Your task to perform on an android device: View the shopping cart on amazon. Image 0: 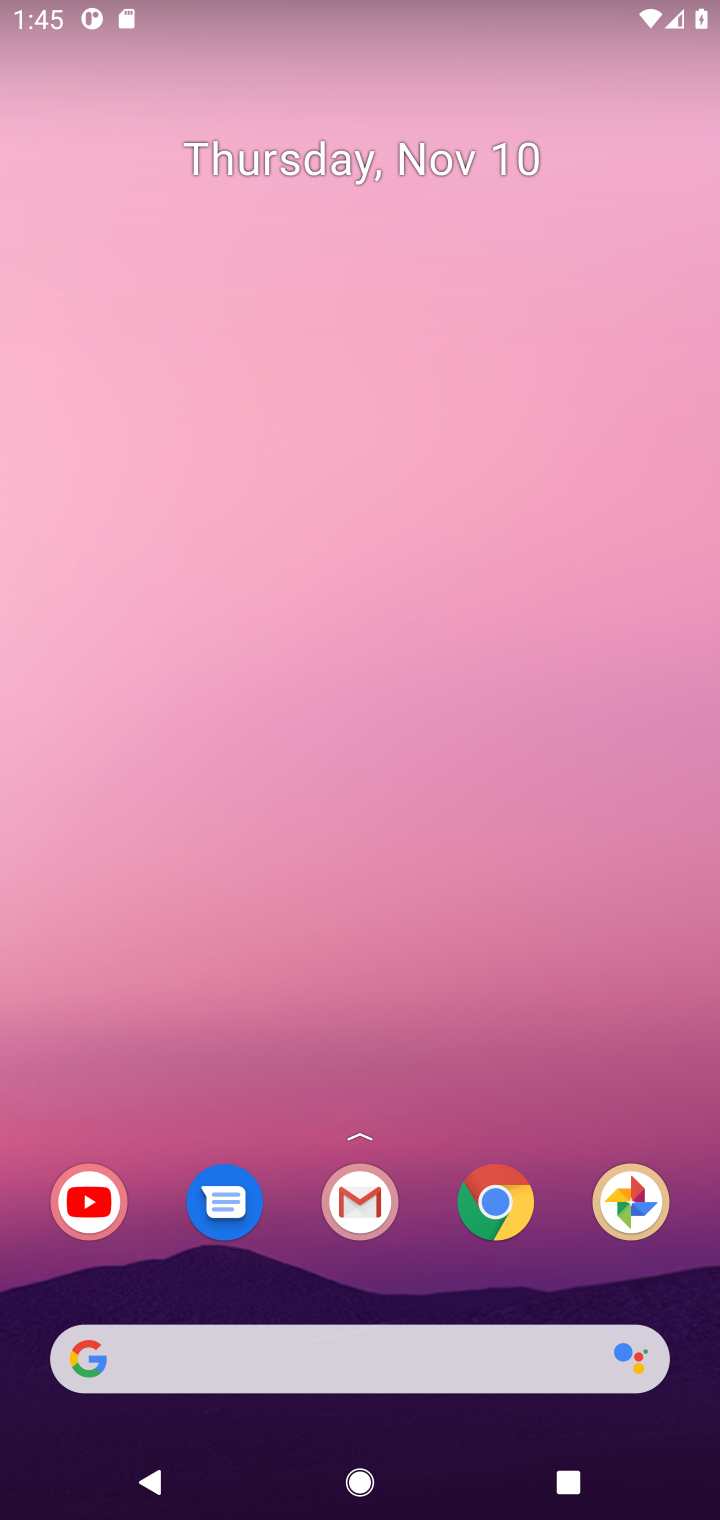
Step 0: click (493, 1200)
Your task to perform on an android device: View the shopping cart on amazon. Image 1: 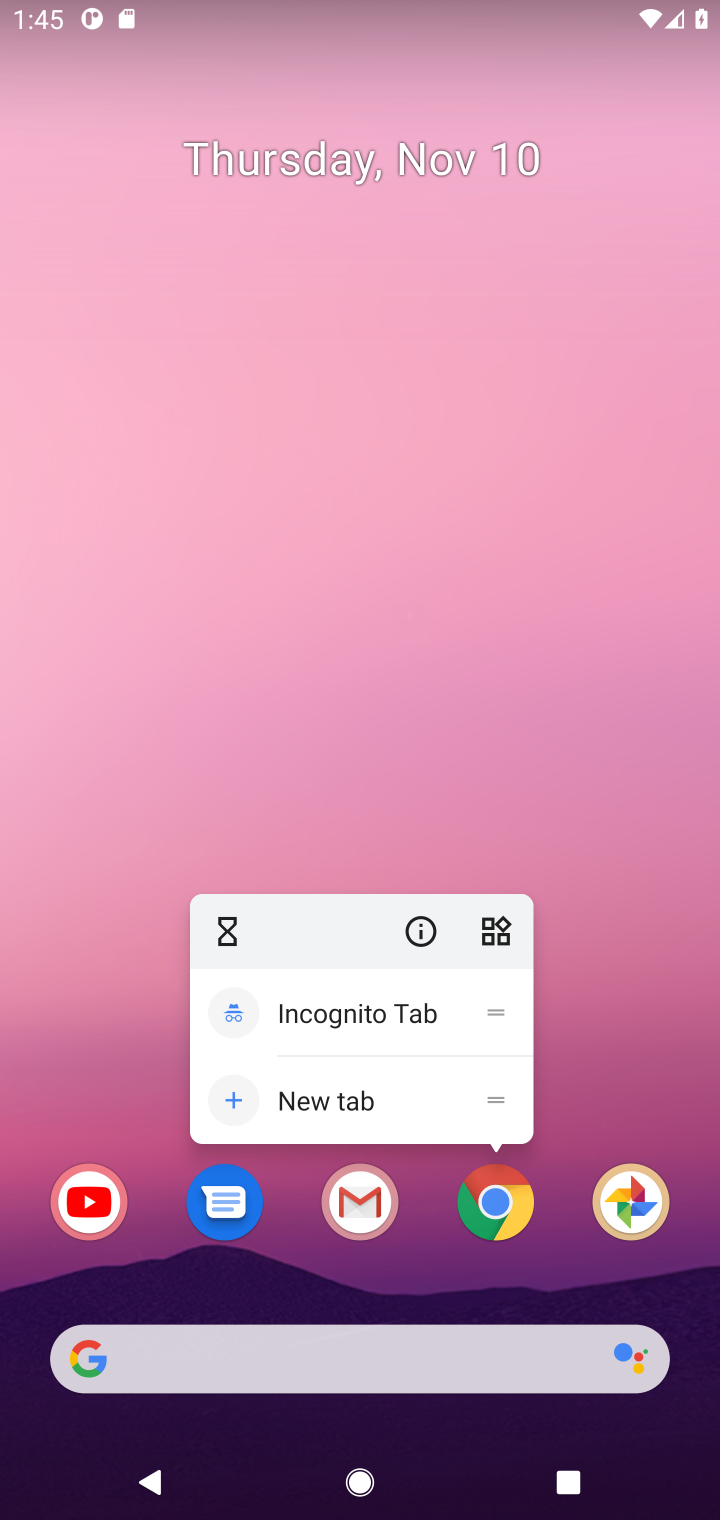
Step 1: click (493, 1200)
Your task to perform on an android device: View the shopping cart on amazon. Image 2: 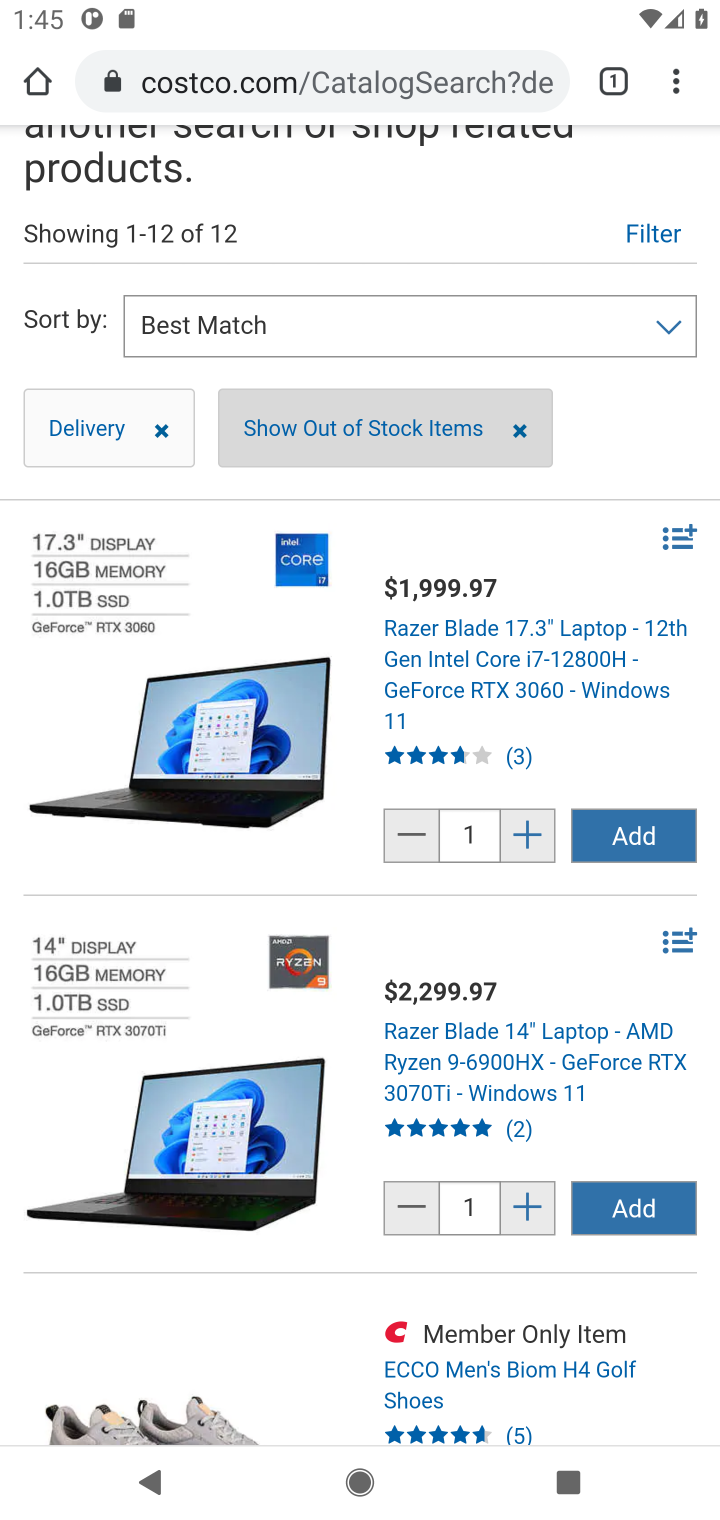
Step 2: click (409, 74)
Your task to perform on an android device: View the shopping cart on amazon. Image 3: 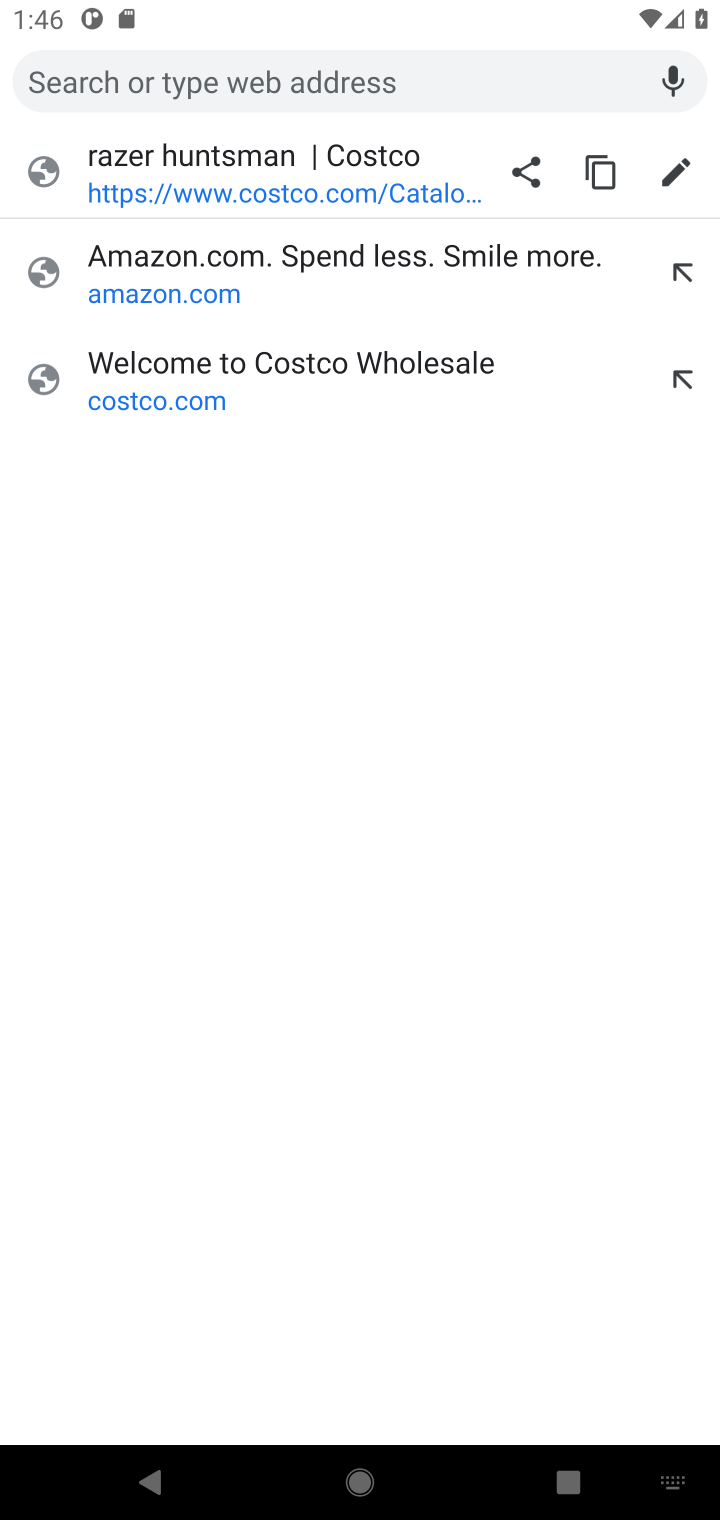
Step 3: press enter
Your task to perform on an android device: View the shopping cart on amazon. Image 4: 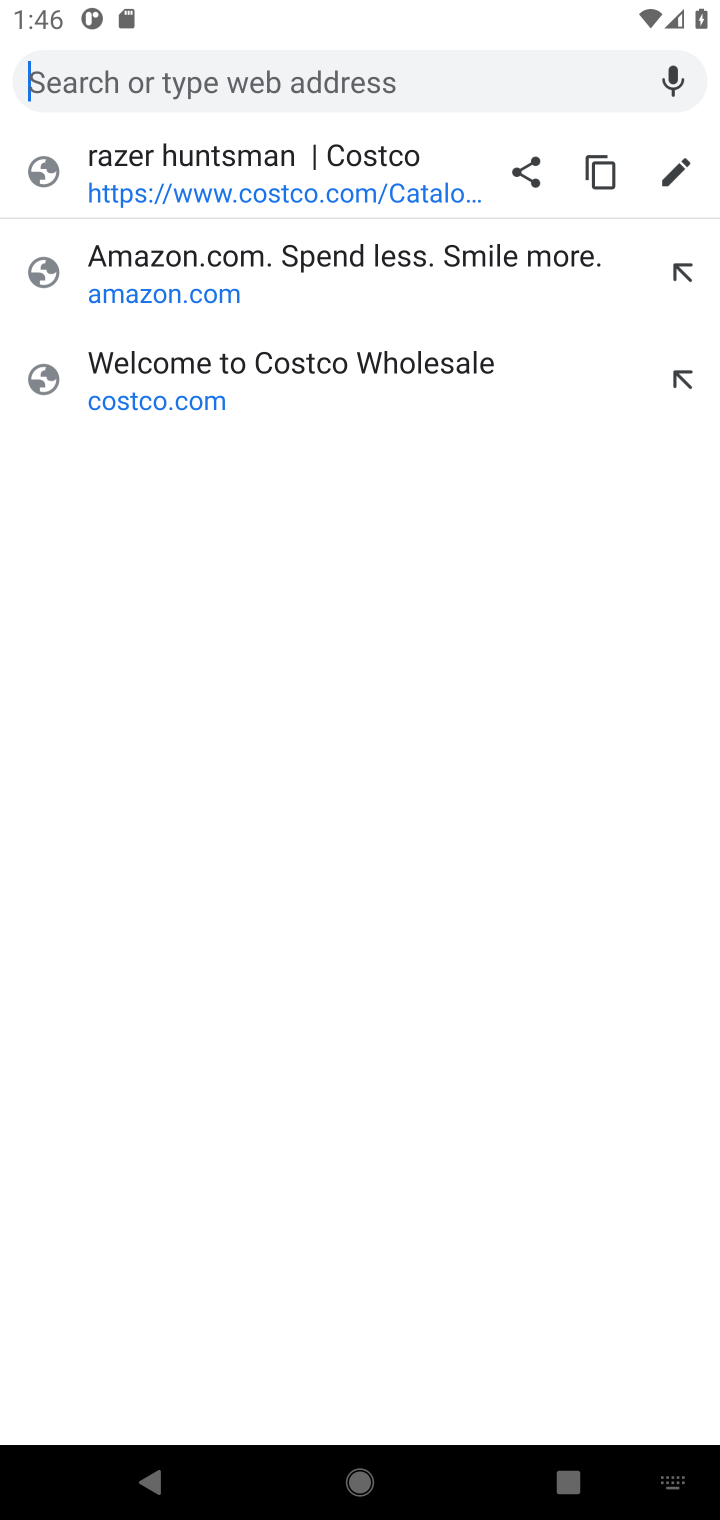
Step 4: type " amazon"
Your task to perform on an android device: View the shopping cart on amazon. Image 5: 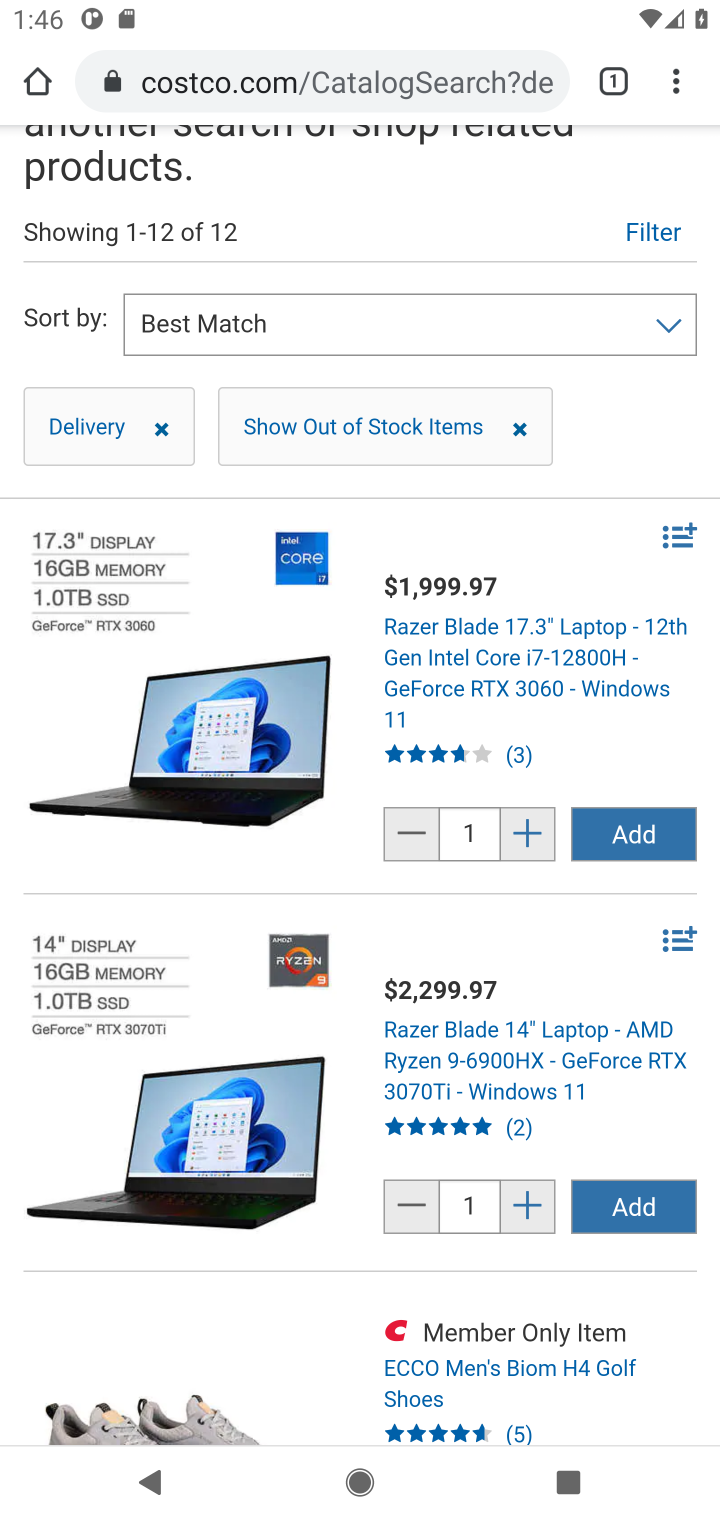
Step 5: click (467, 64)
Your task to perform on an android device: View the shopping cart on amazon. Image 6: 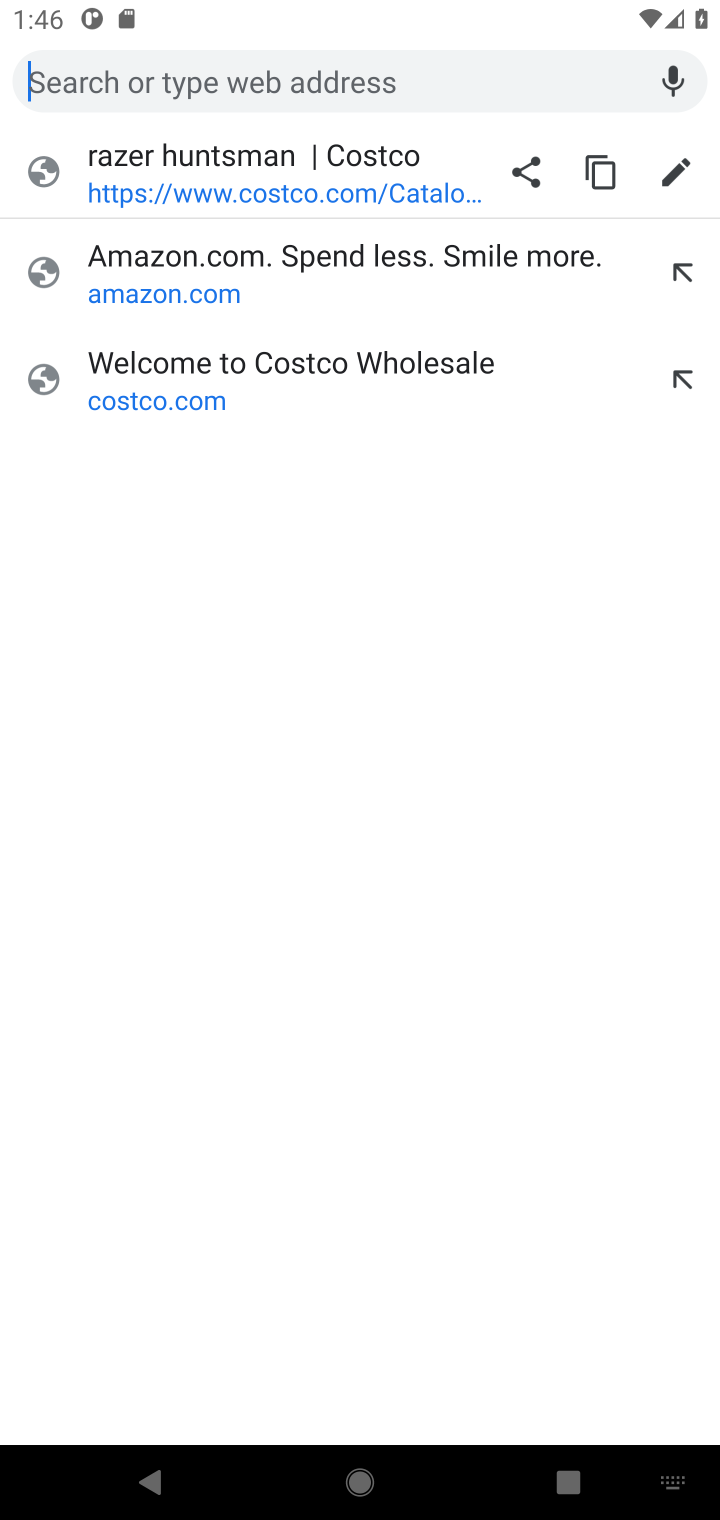
Step 6: type " amazon"
Your task to perform on an android device: View the shopping cart on amazon. Image 7: 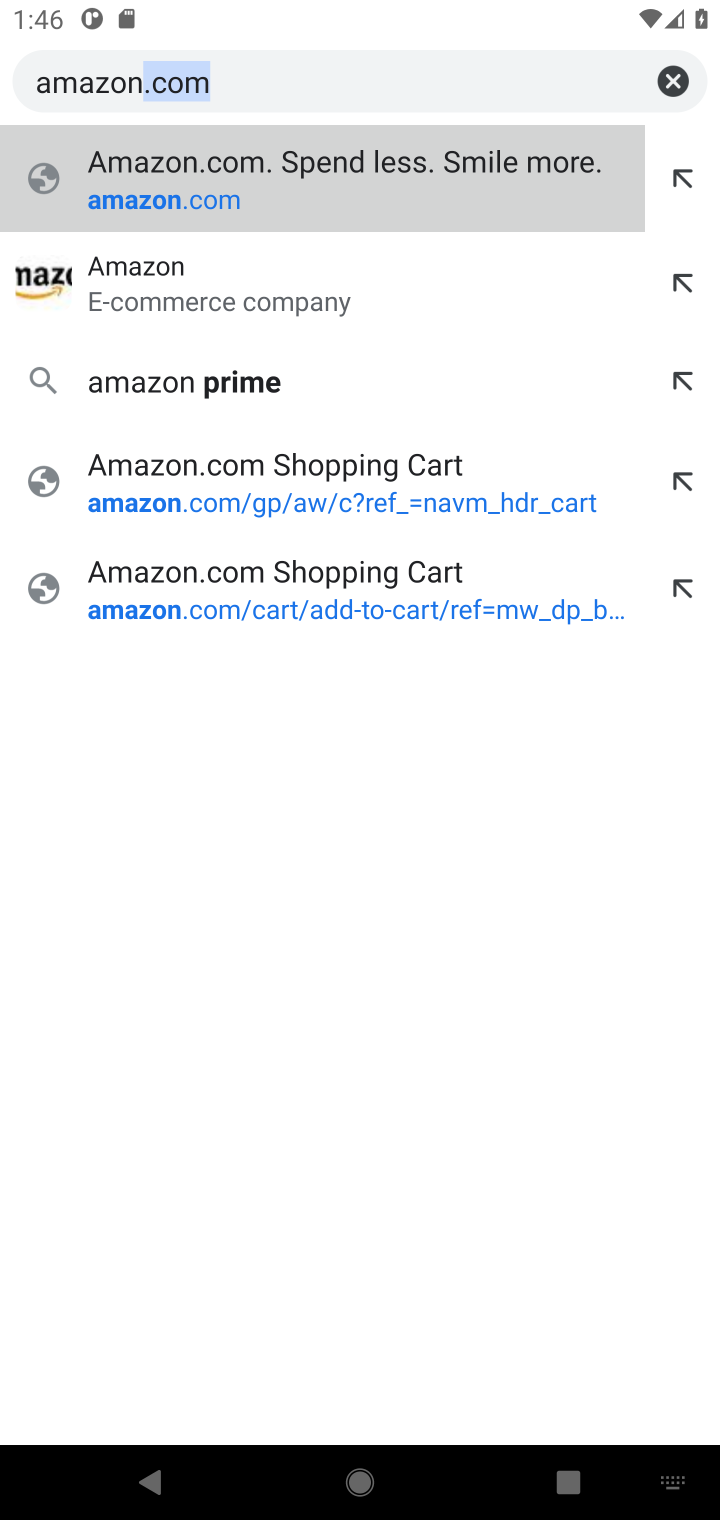
Step 7: press enter
Your task to perform on an android device: View the shopping cart on amazon. Image 8: 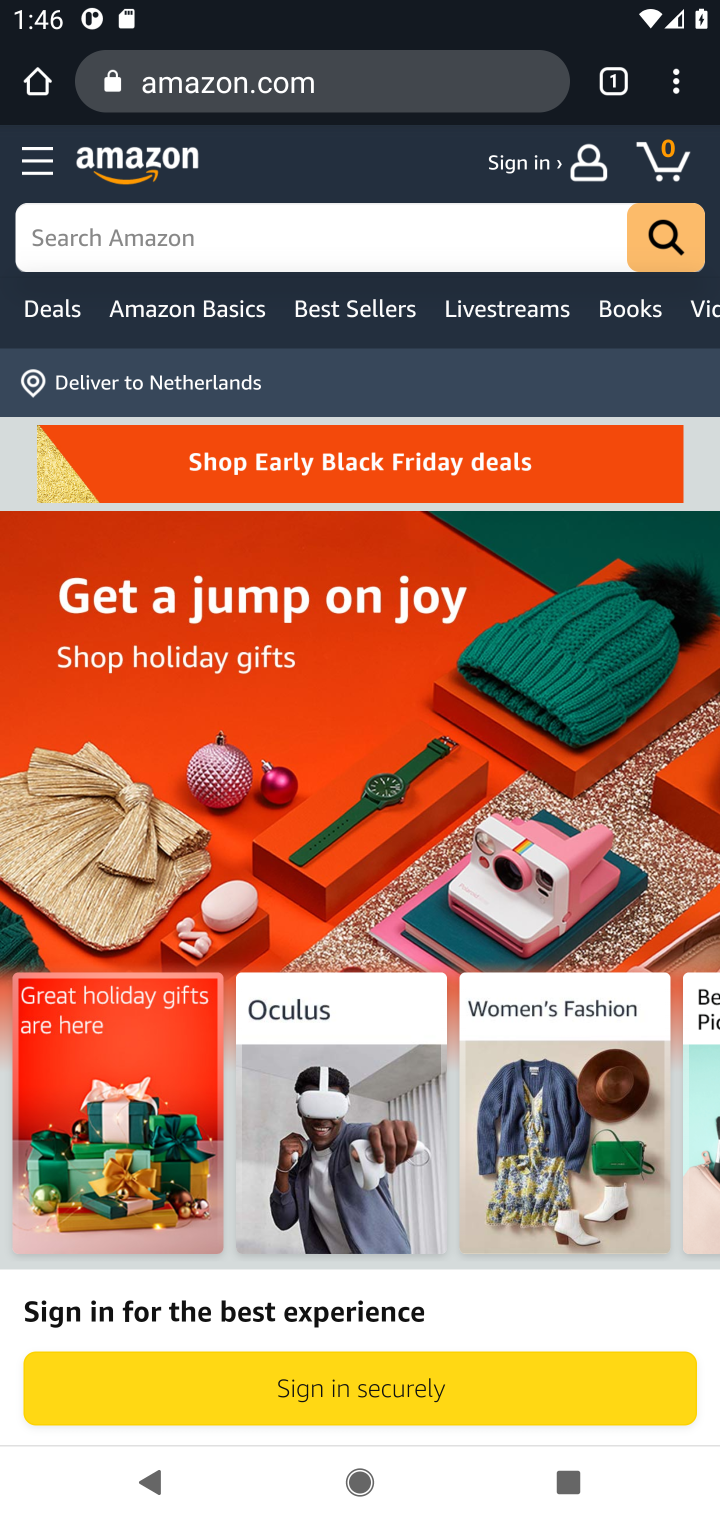
Step 8: click (648, 154)
Your task to perform on an android device: View the shopping cart on amazon. Image 9: 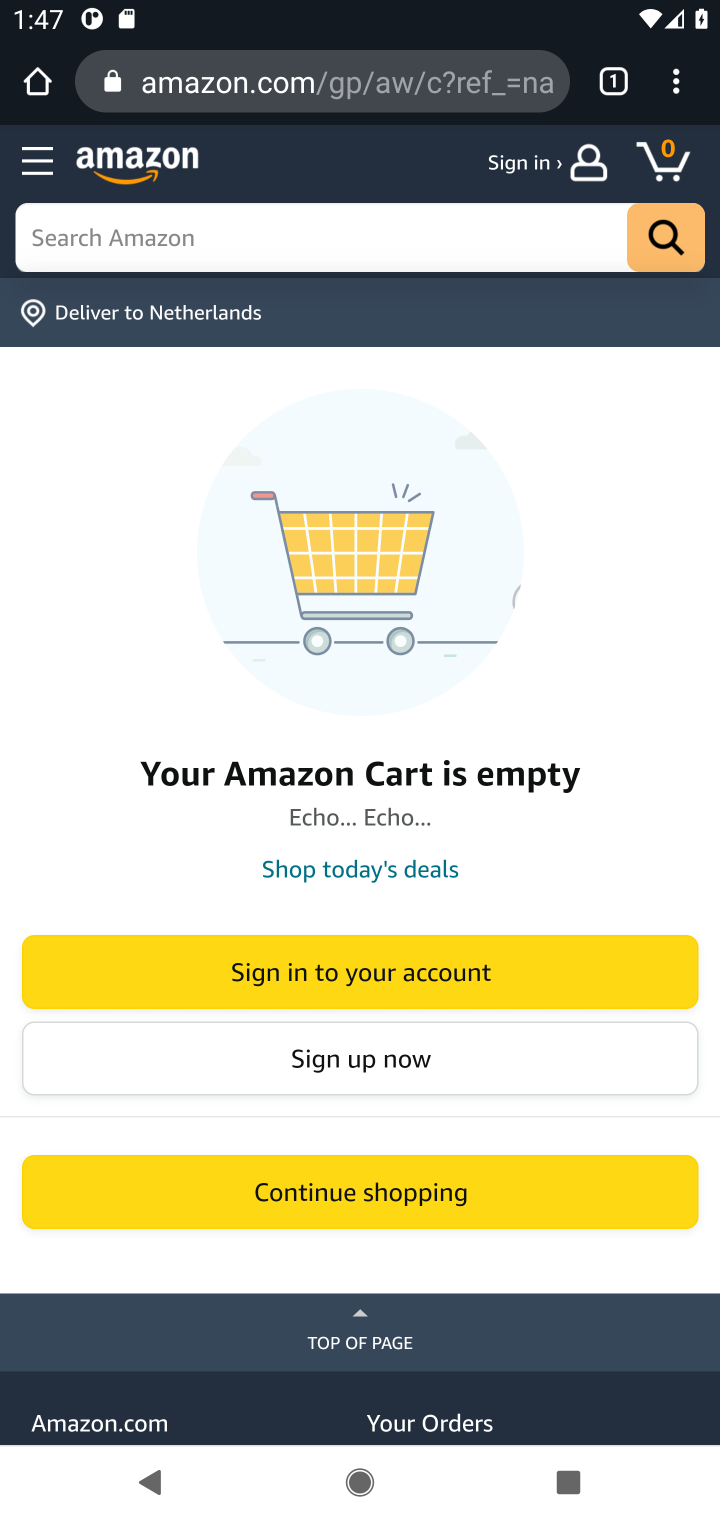
Step 9: task complete